Your task to perform on an android device: Is it going to rain today? Image 0: 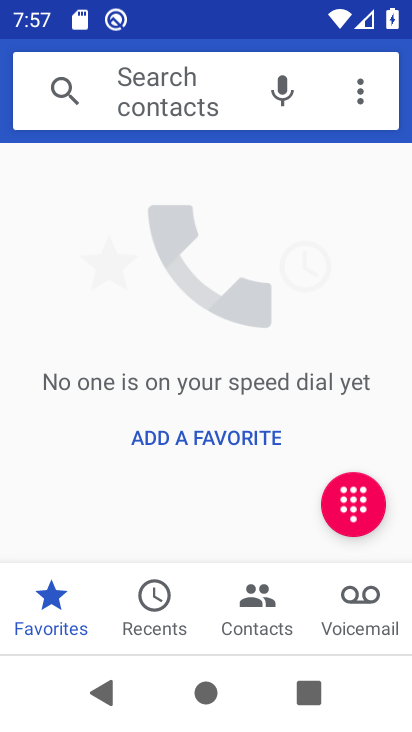
Step 0: press home button
Your task to perform on an android device: Is it going to rain today? Image 1: 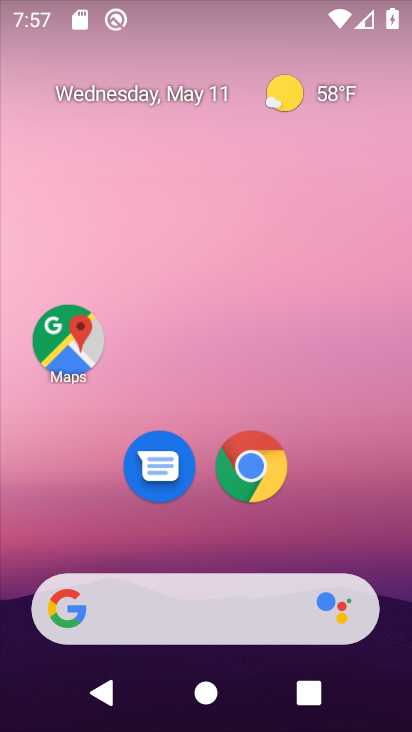
Step 1: click (192, 587)
Your task to perform on an android device: Is it going to rain today? Image 2: 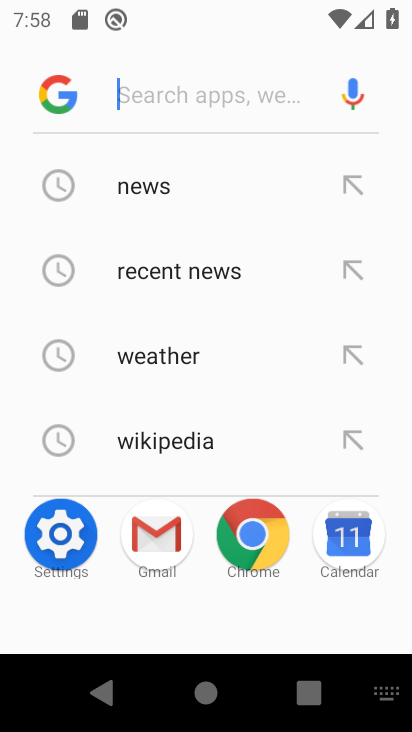
Step 2: type "is it going to rain today"
Your task to perform on an android device: Is it going to rain today? Image 3: 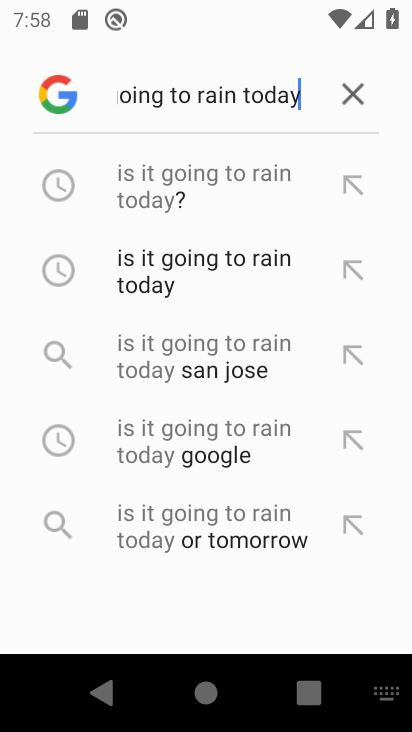
Step 3: click (201, 197)
Your task to perform on an android device: Is it going to rain today? Image 4: 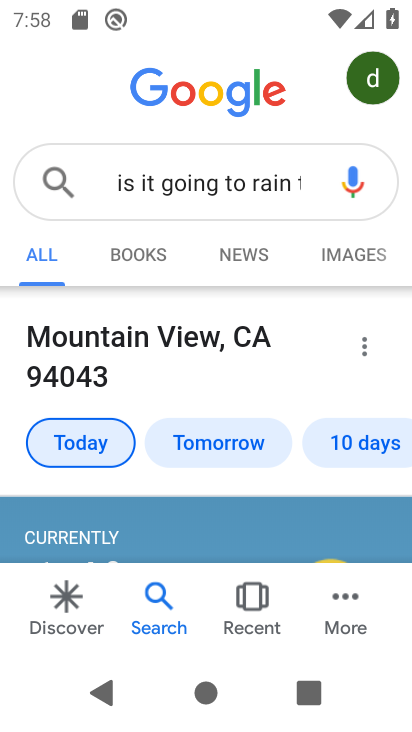
Step 4: task complete